Your task to perform on an android device: View the shopping cart on newegg. Image 0: 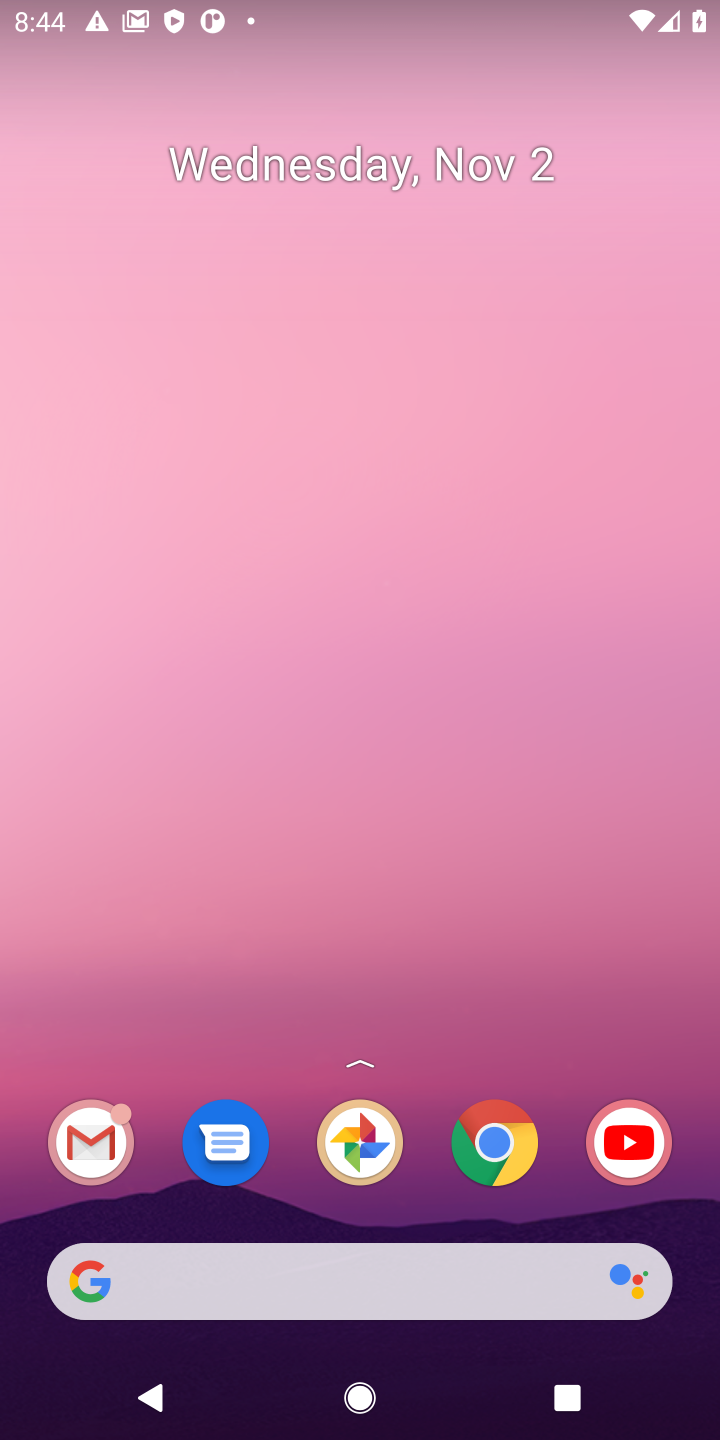
Step 0: press home button
Your task to perform on an android device: View the shopping cart on newegg. Image 1: 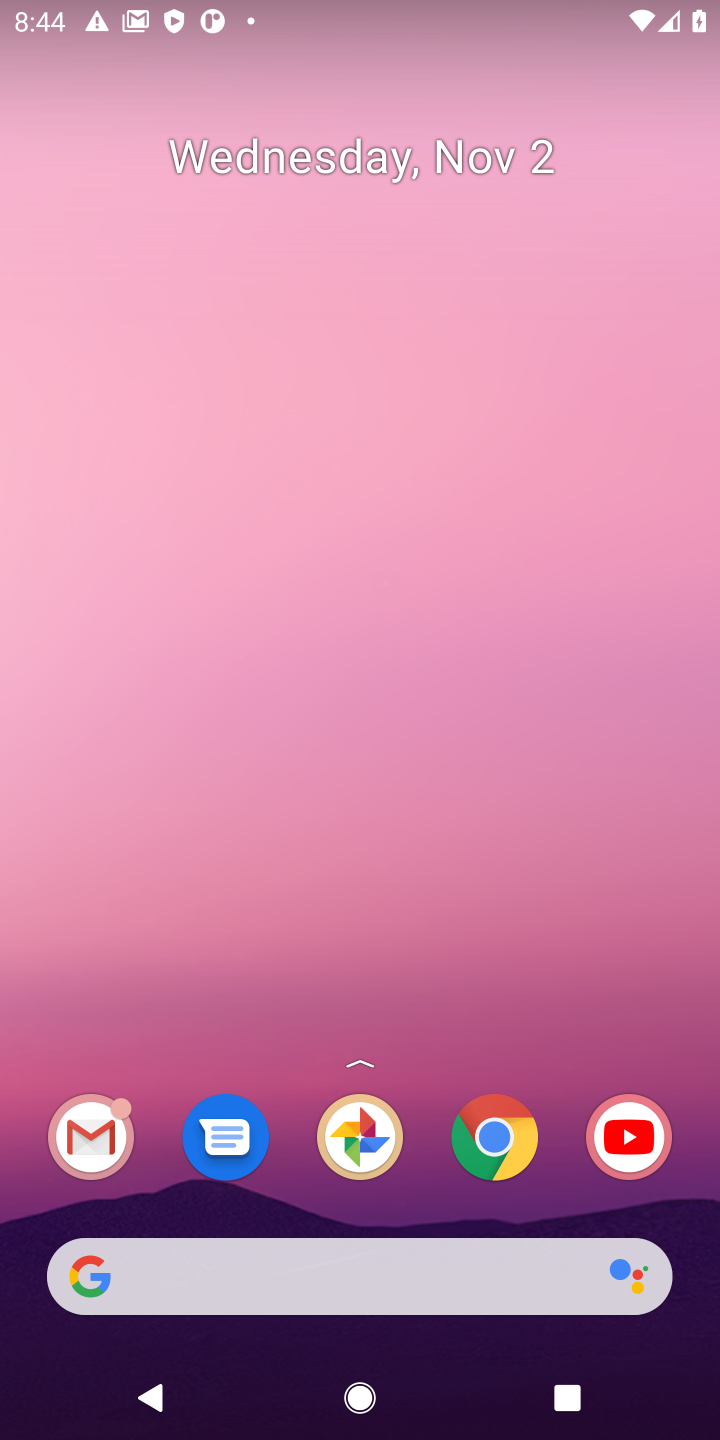
Step 1: click (489, 1138)
Your task to perform on an android device: View the shopping cart on newegg. Image 2: 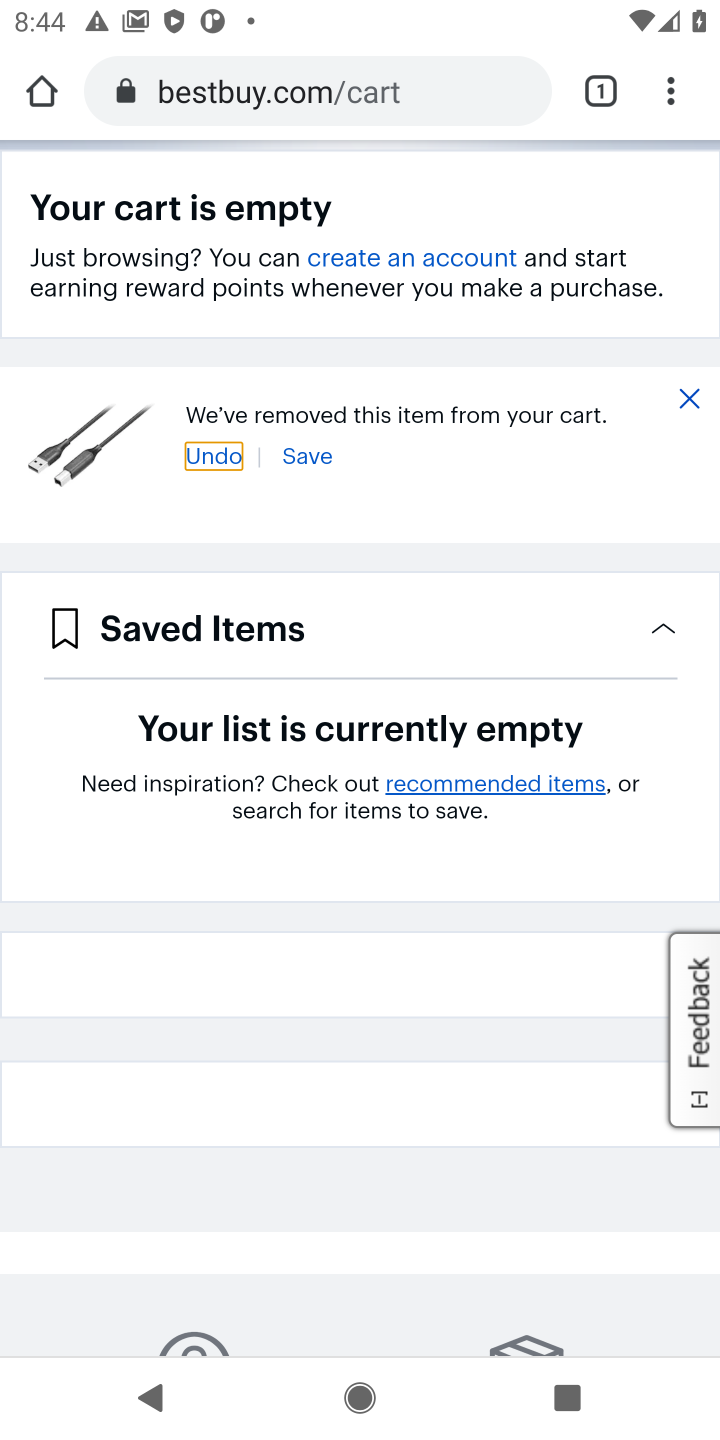
Step 2: click (432, 62)
Your task to perform on an android device: View the shopping cart on newegg. Image 3: 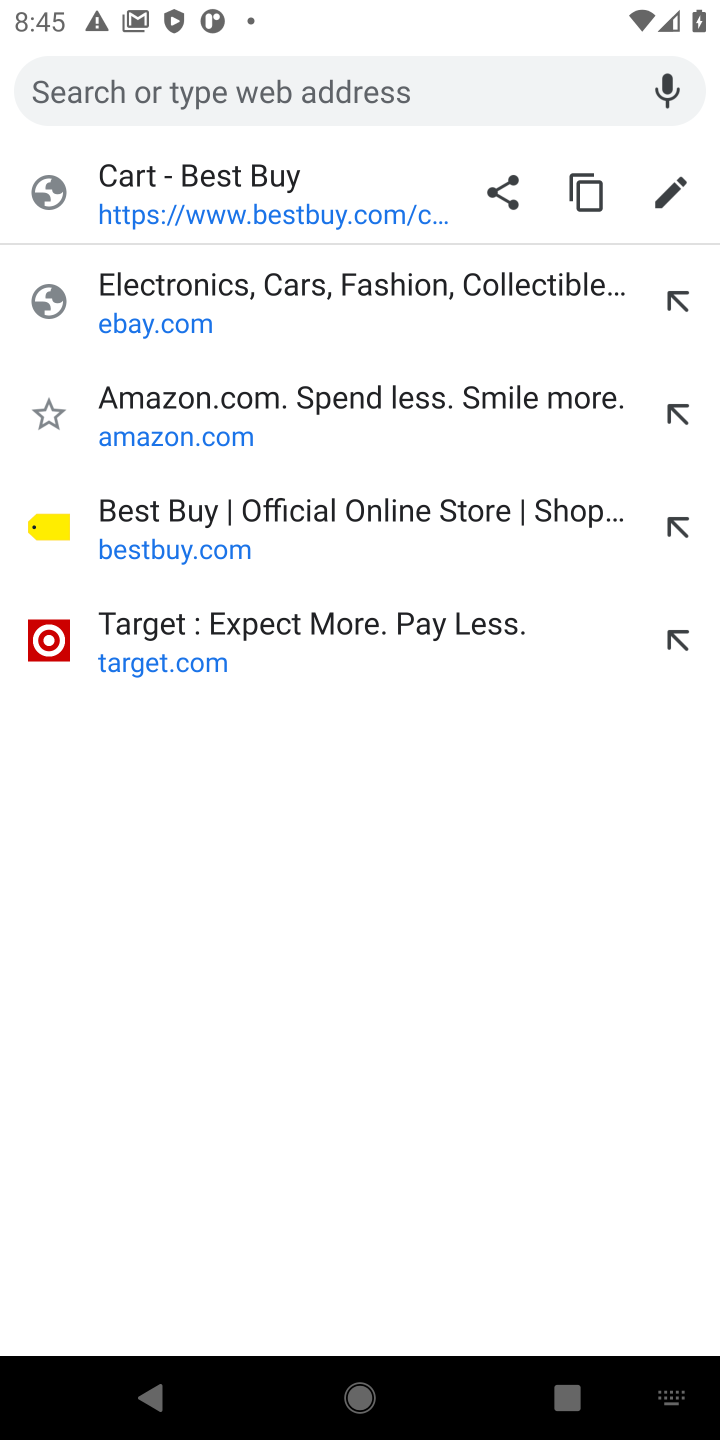
Step 3: type "newegg"
Your task to perform on an android device: View the shopping cart on newegg. Image 4: 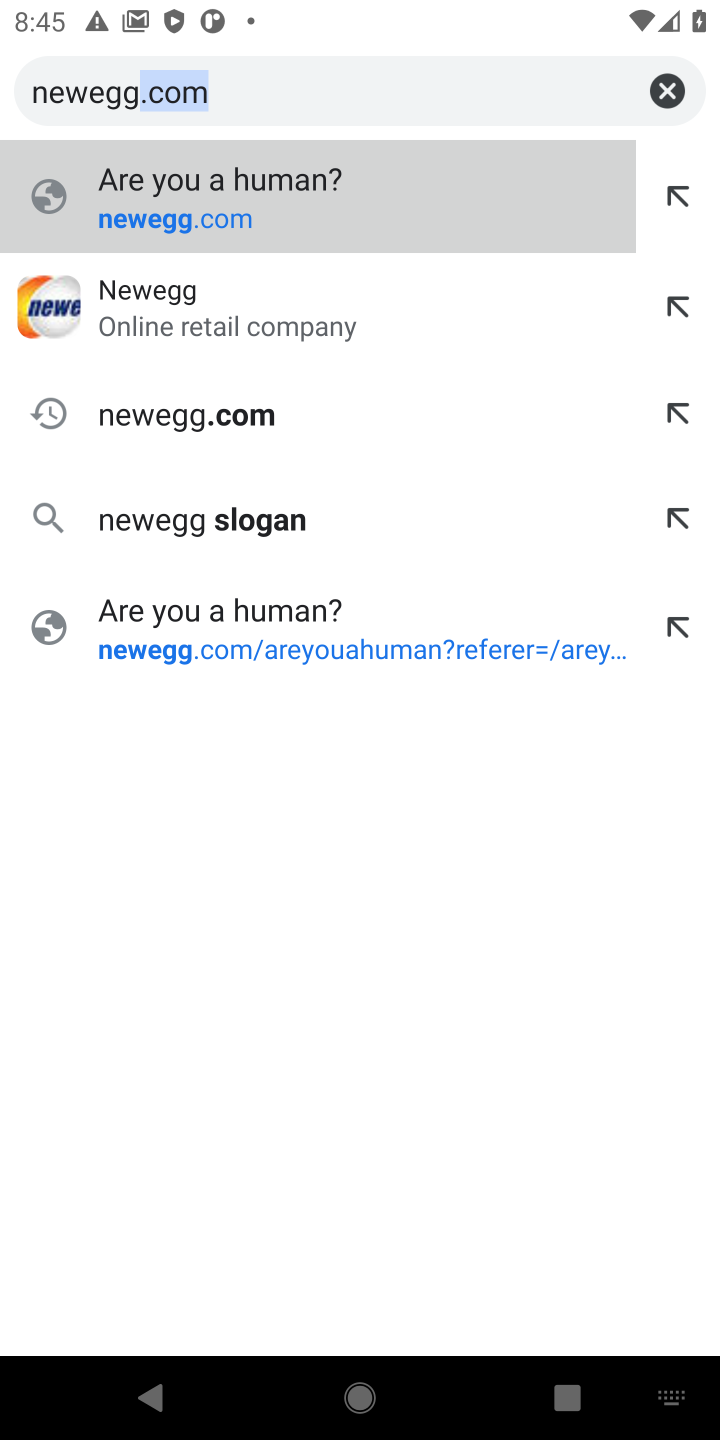
Step 4: click (146, 304)
Your task to perform on an android device: View the shopping cart on newegg. Image 5: 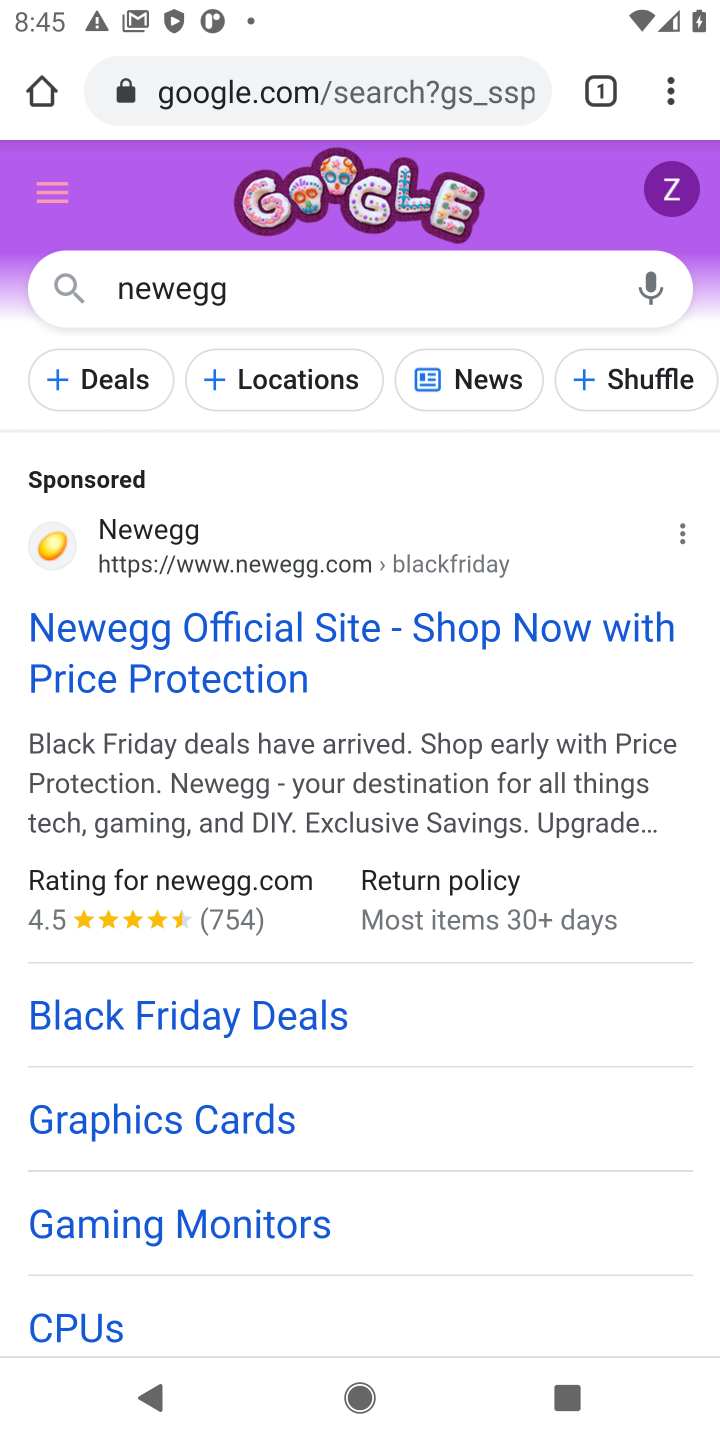
Step 5: click (162, 627)
Your task to perform on an android device: View the shopping cart on newegg. Image 6: 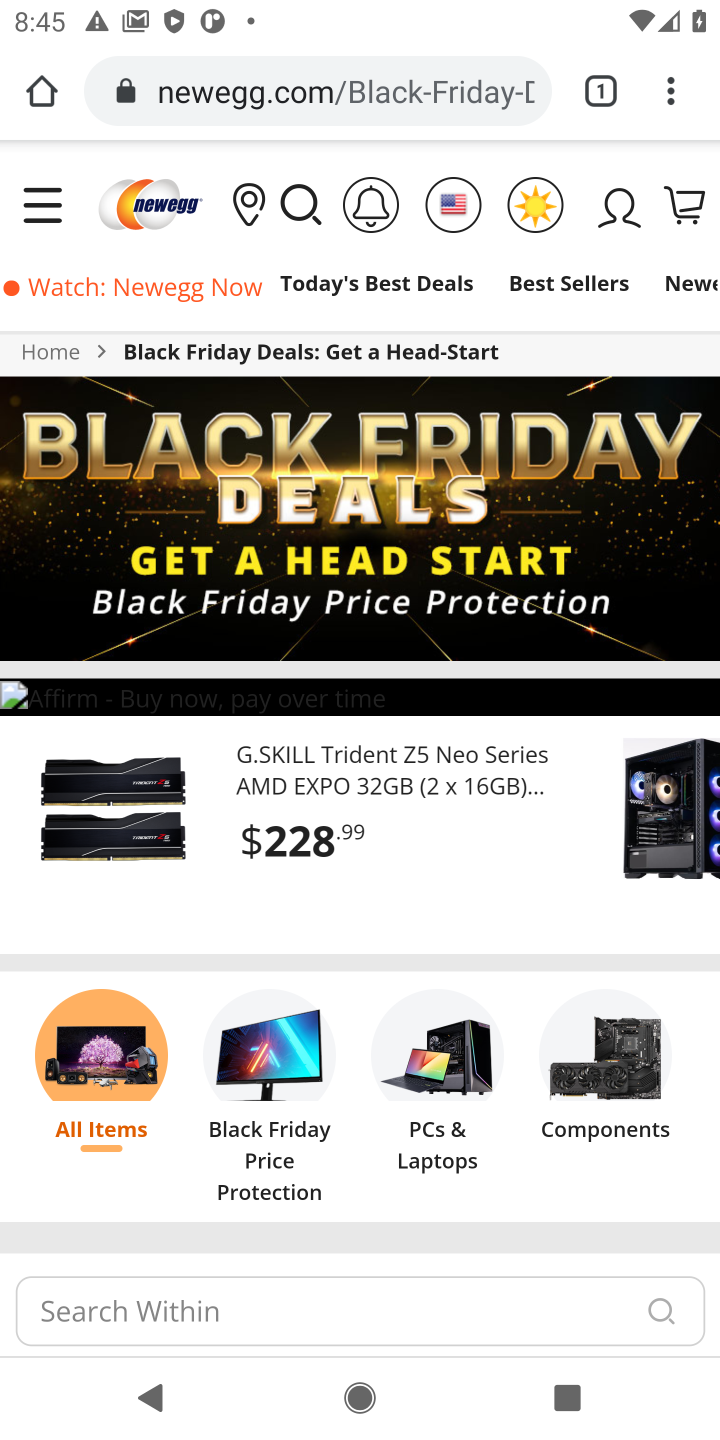
Step 6: click (688, 196)
Your task to perform on an android device: View the shopping cart on newegg. Image 7: 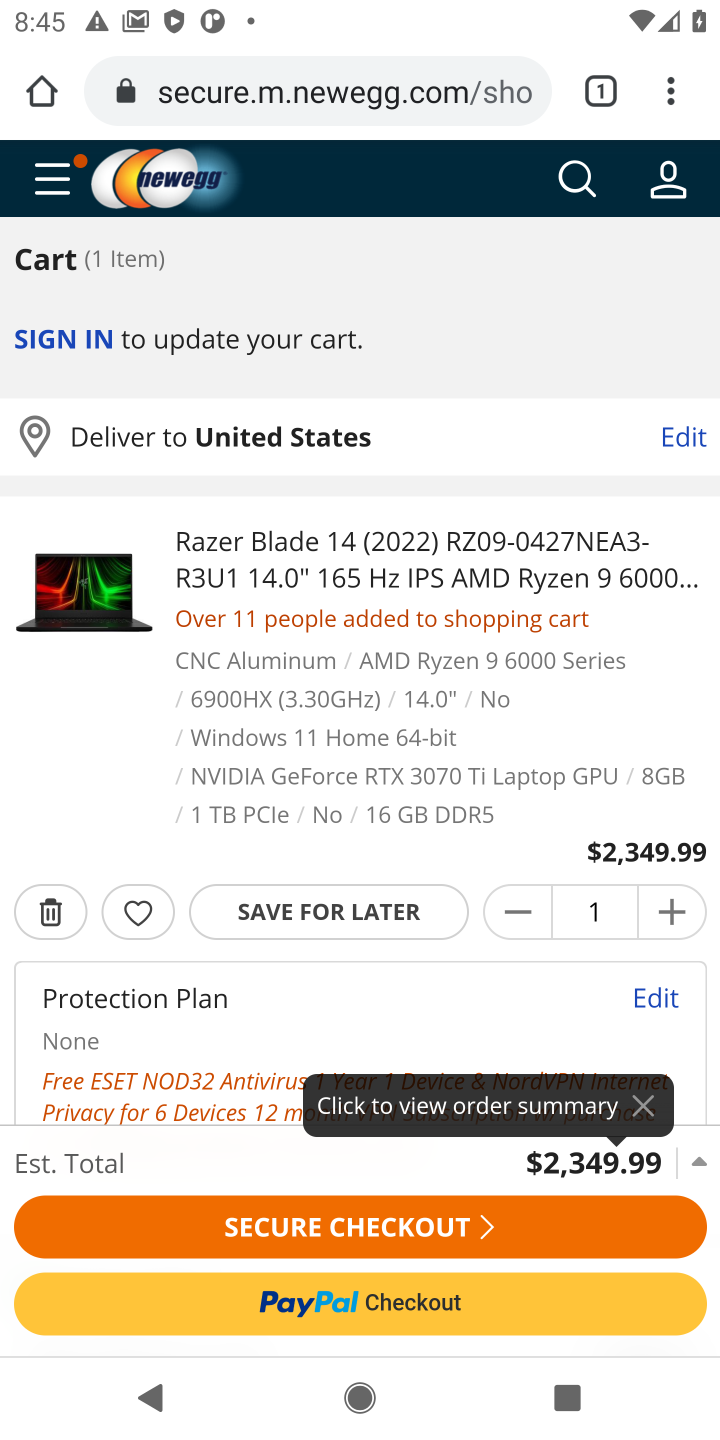
Step 7: task complete